Your task to perform on an android device: Go to settings Image 0: 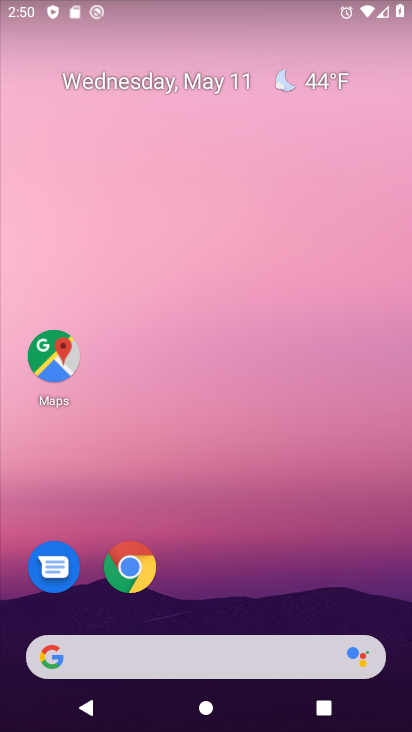
Step 0: drag from (225, 552) to (197, 8)
Your task to perform on an android device: Go to settings Image 1: 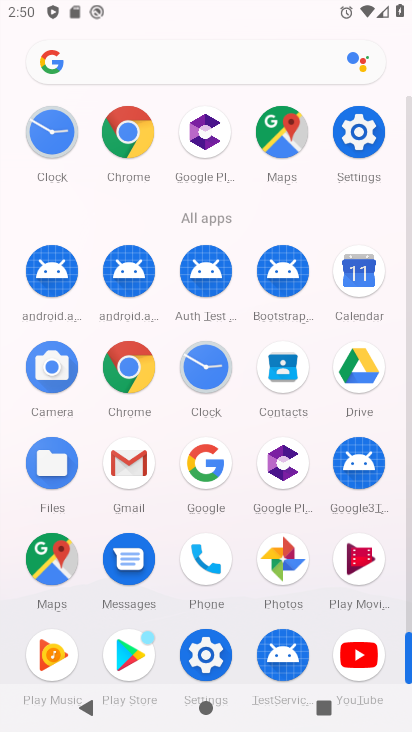
Step 1: click (206, 650)
Your task to perform on an android device: Go to settings Image 2: 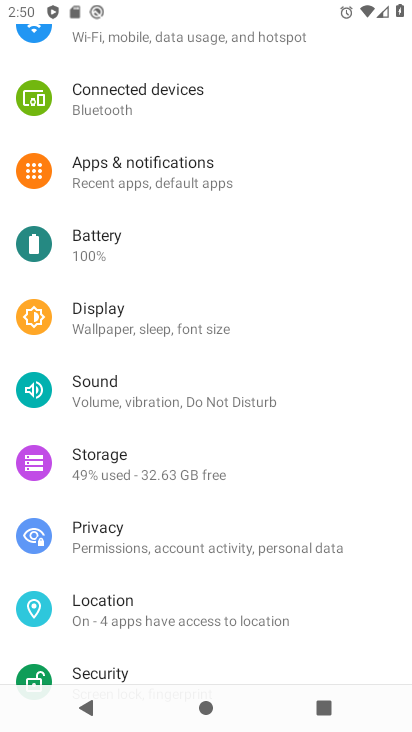
Step 2: task complete